Your task to perform on an android device: What's the weather going to be tomorrow? Image 0: 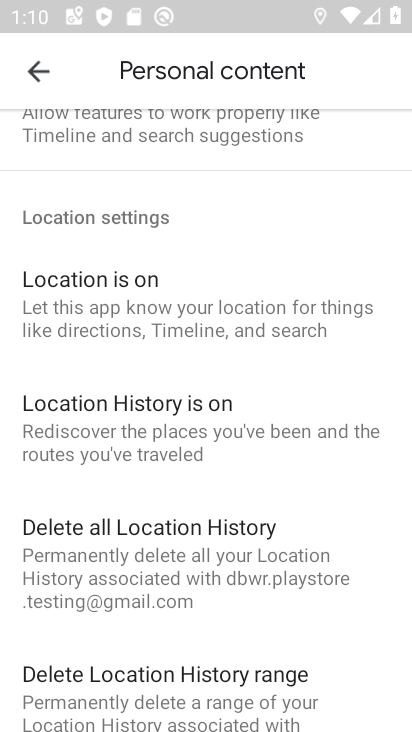
Step 0: press home button
Your task to perform on an android device: What's the weather going to be tomorrow? Image 1: 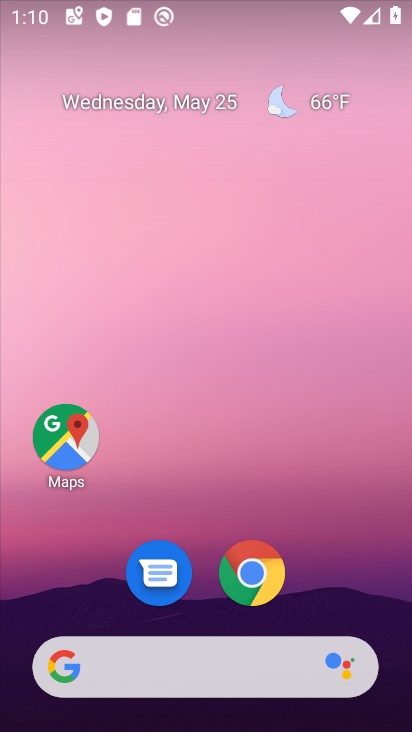
Step 1: click (321, 98)
Your task to perform on an android device: What's the weather going to be tomorrow? Image 2: 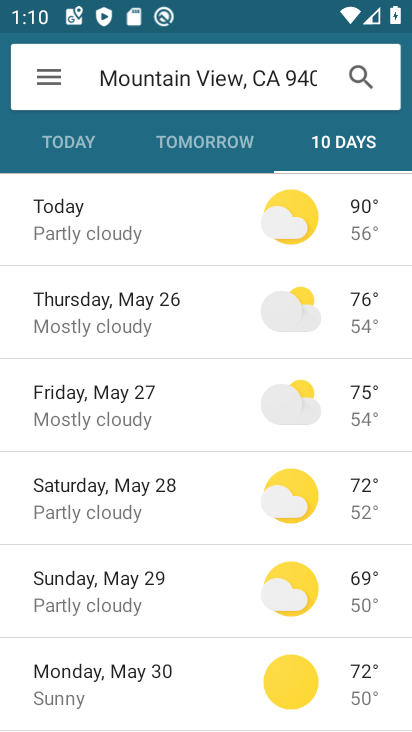
Step 2: click (218, 126)
Your task to perform on an android device: What's the weather going to be tomorrow? Image 3: 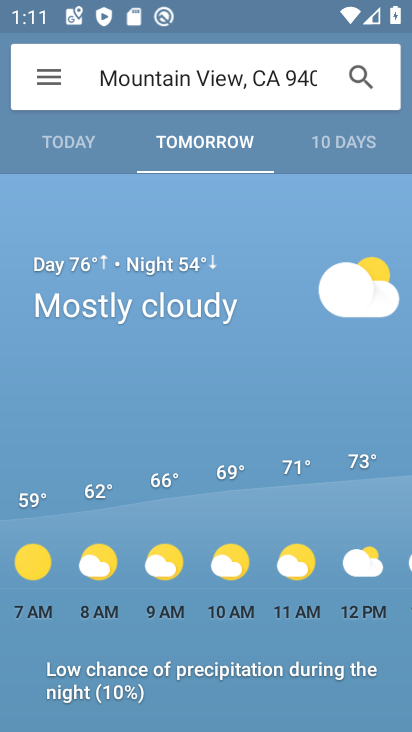
Step 3: task complete